Your task to perform on an android device: Toggle the flashlight Image 0: 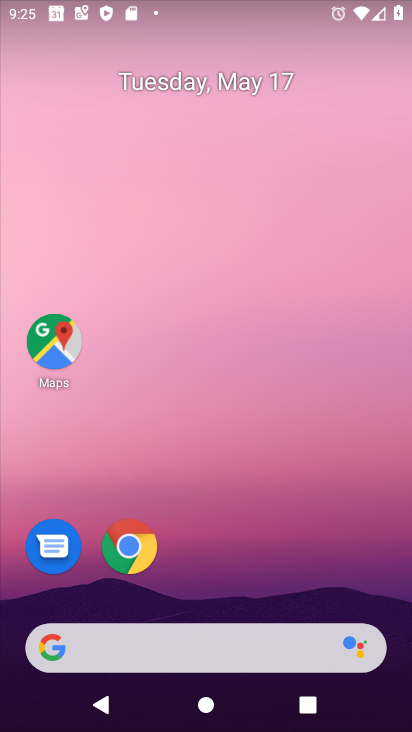
Step 0: drag from (285, 577) to (302, 4)
Your task to perform on an android device: Toggle the flashlight Image 1: 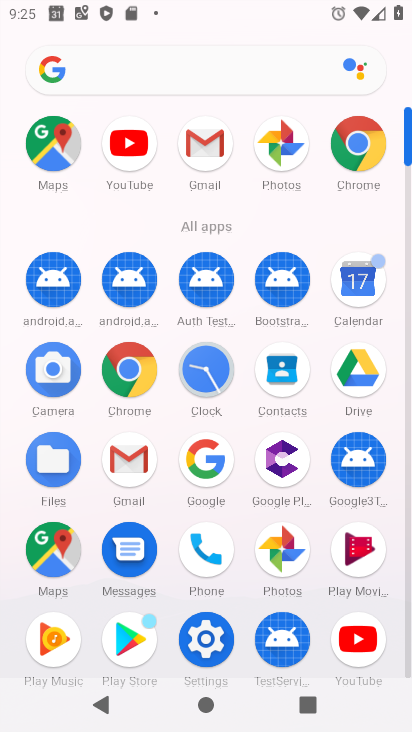
Step 1: click (203, 639)
Your task to perform on an android device: Toggle the flashlight Image 2: 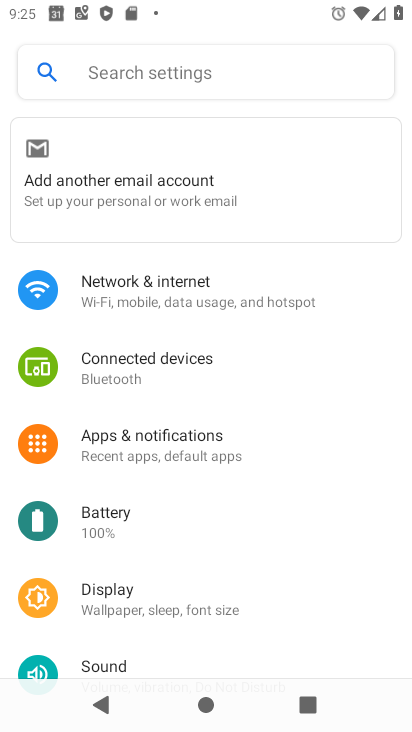
Step 2: task complete